Your task to perform on an android device: Open Maps and search for coffee Image 0: 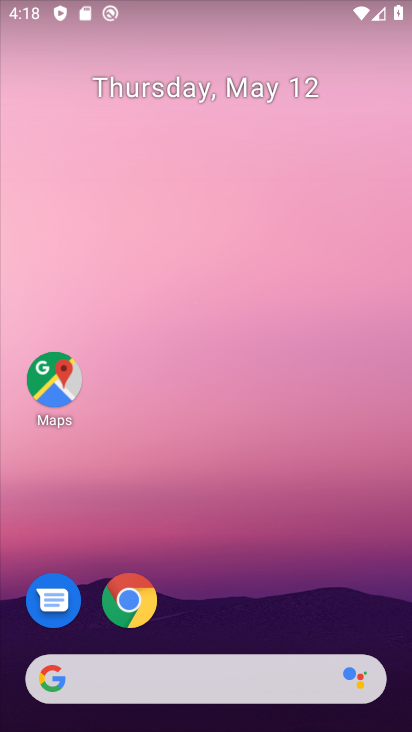
Step 0: drag from (193, 624) to (242, 223)
Your task to perform on an android device: Open Maps and search for coffee Image 1: 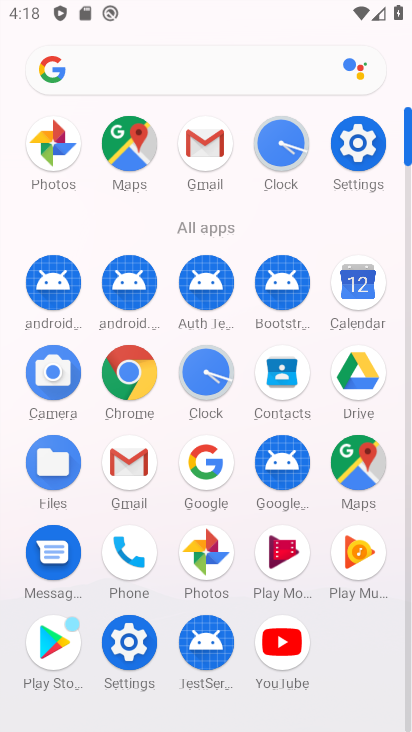
Step 1: click (354, 463)
Your task to perform on an android device: Open Maps and search for coffee Image 2: 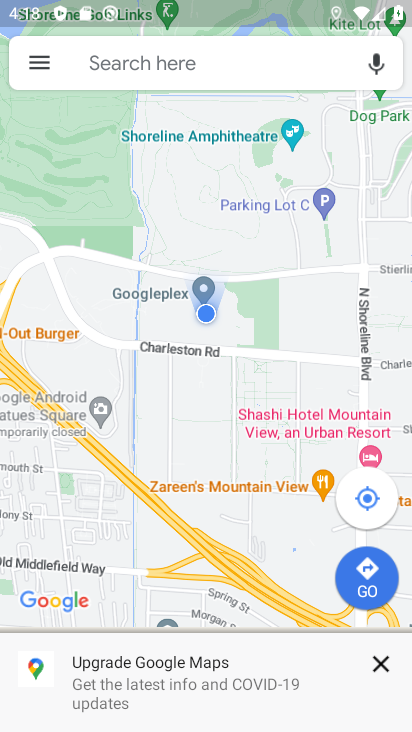
Step 2: click (140, 71)
Your task to perform on an android device: Open Maps and search for coffee Image 3: 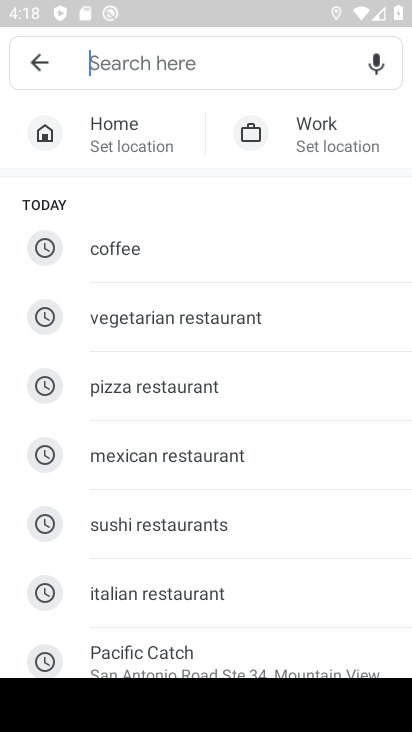
Step 3: click (117, 249)
Your task to perform on an android device: Open Maps and search for coffee Image 4: 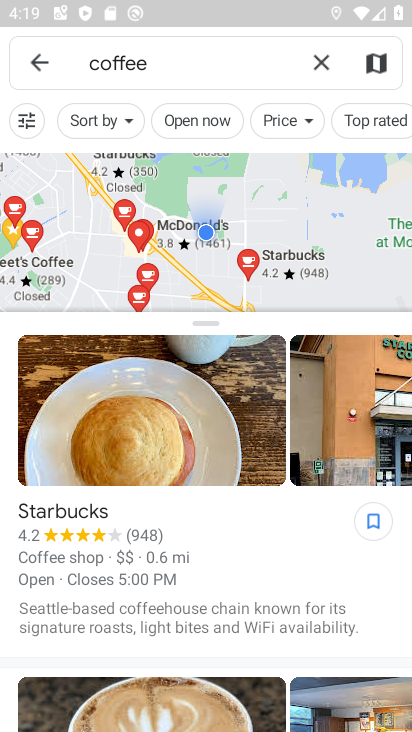
Step 4: task complete